Your task to perform on an android device: toggle improve location accuracy Image 0: 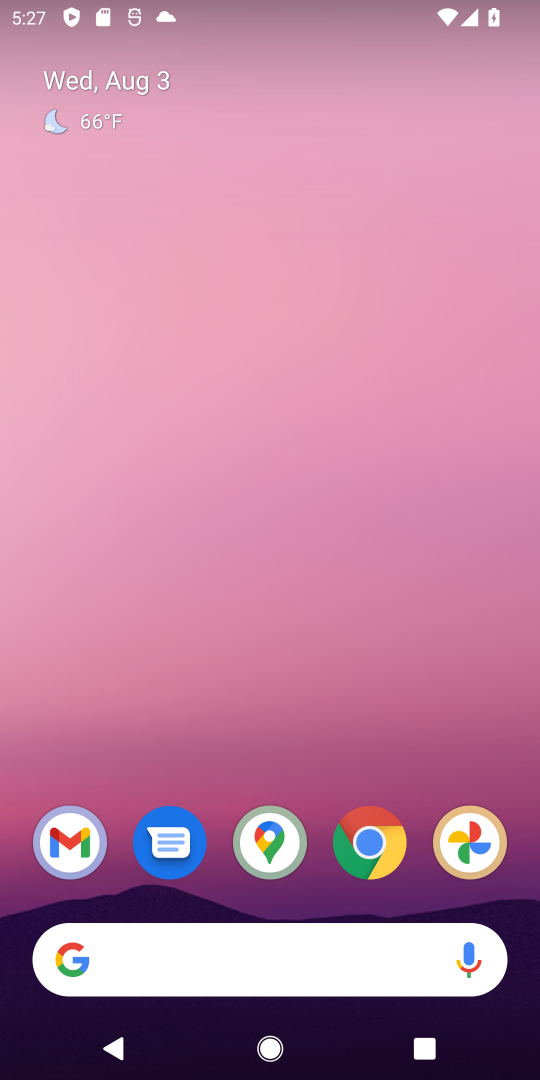
Step 0: drag from (282, 349) to (347, 82)
Your task to perform on an android device: toggle improve location accuracy Image 1: 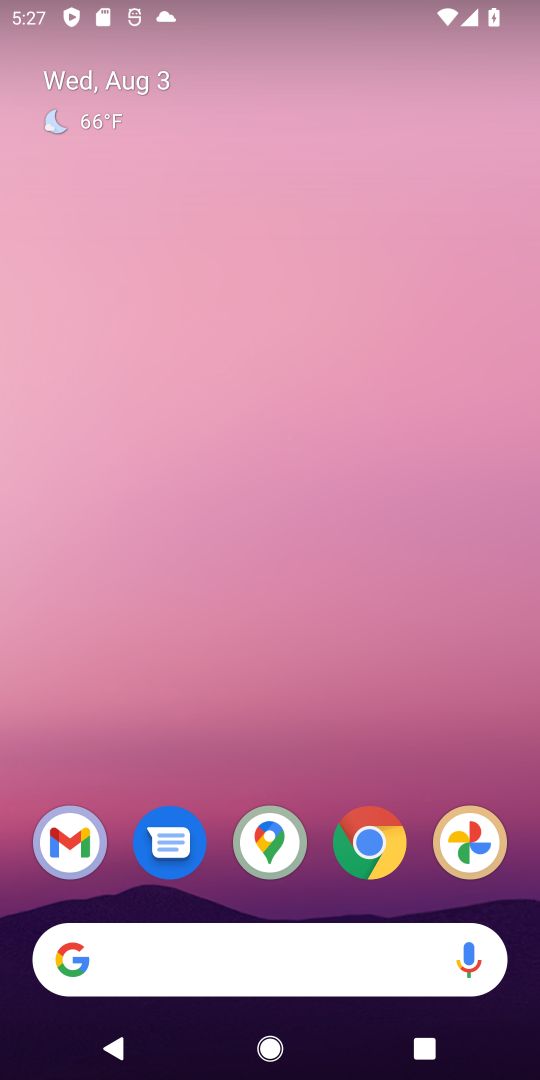
Step 1: drag from (198, 965) to (282, 192)
Your task to perform on an android device: toggle improve location accuracy Image 2: 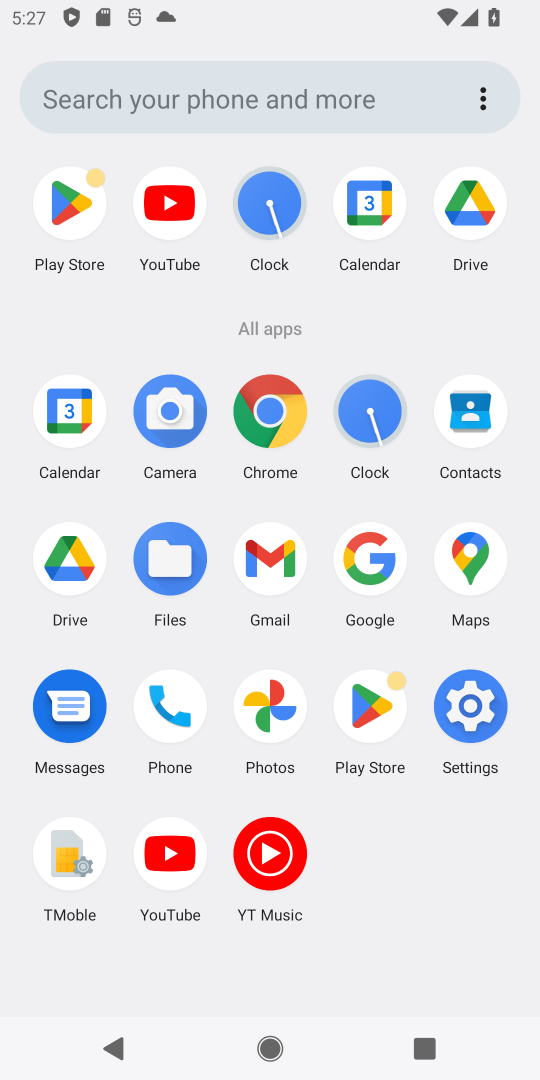
Step 2: click (452, 727)
Your task to perform on an android device: toggle improve location accuracy Image 3: 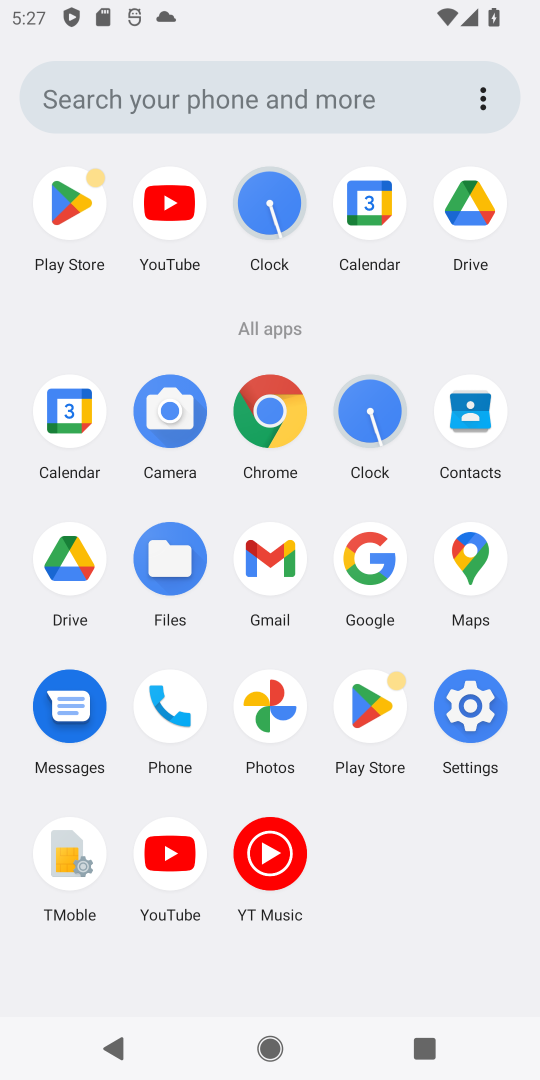
Step 3: click (452, 727)
Your task to perform on an android device: toggle improve location accuracy Image 4: 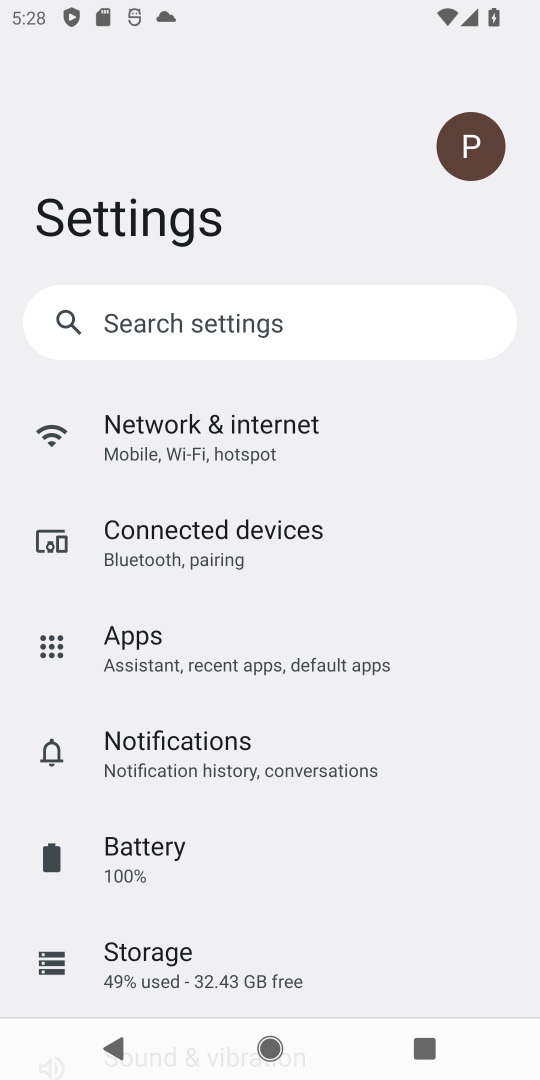
Step 4: drag from (374, 918) to (311, 13)
Your task to perform on an android device: toggle improve location accuracy Image 5: 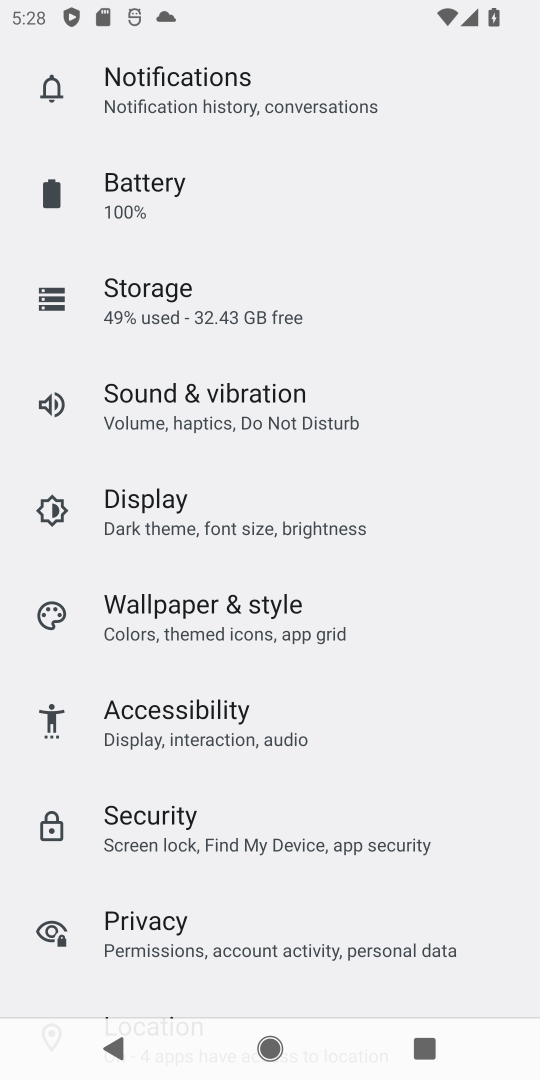
Step 5: drag from (177, 286) to (232, 1058)
Your task to perform on an android device: toggle improve location accuracy Image 6: 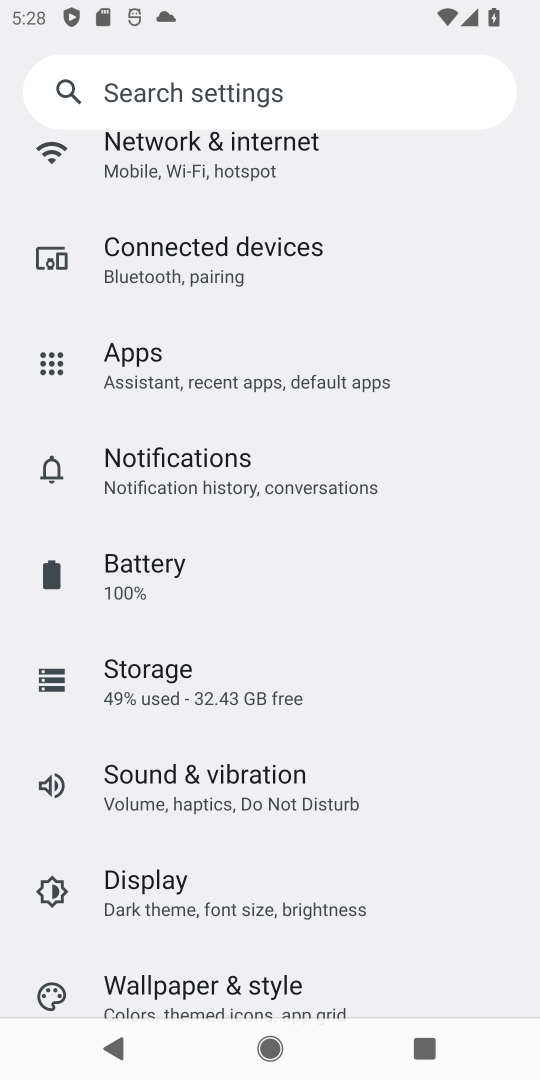
Step 6: drag from (243, 780) to (258, 88)
Your task to perform on an android device: toggle improve location accuracy Image 7: 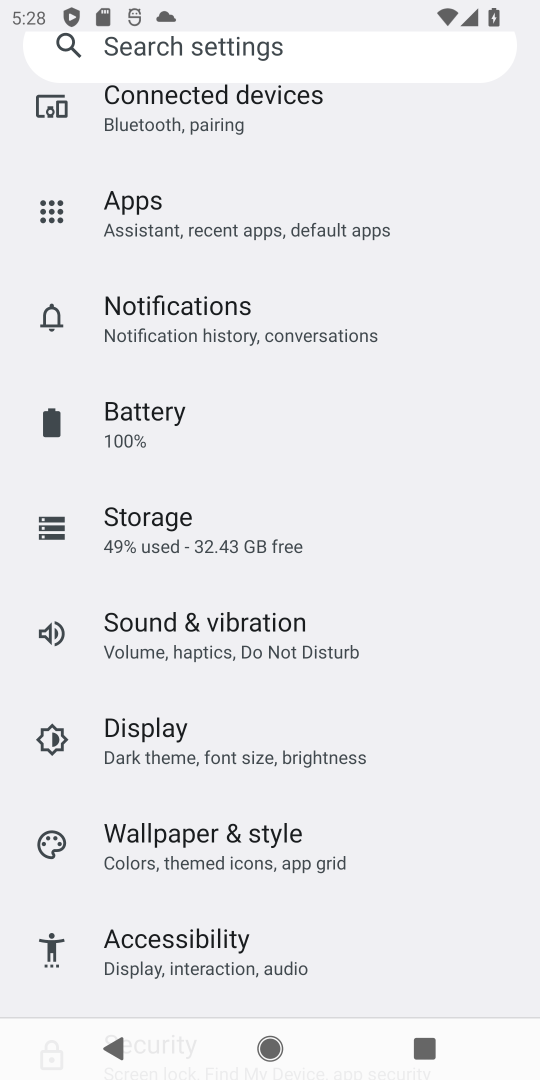
Step 7: drag from (276, 894) to (243, 129)
Your task to perform on an android device: toggle improve location accuracy Image 8: 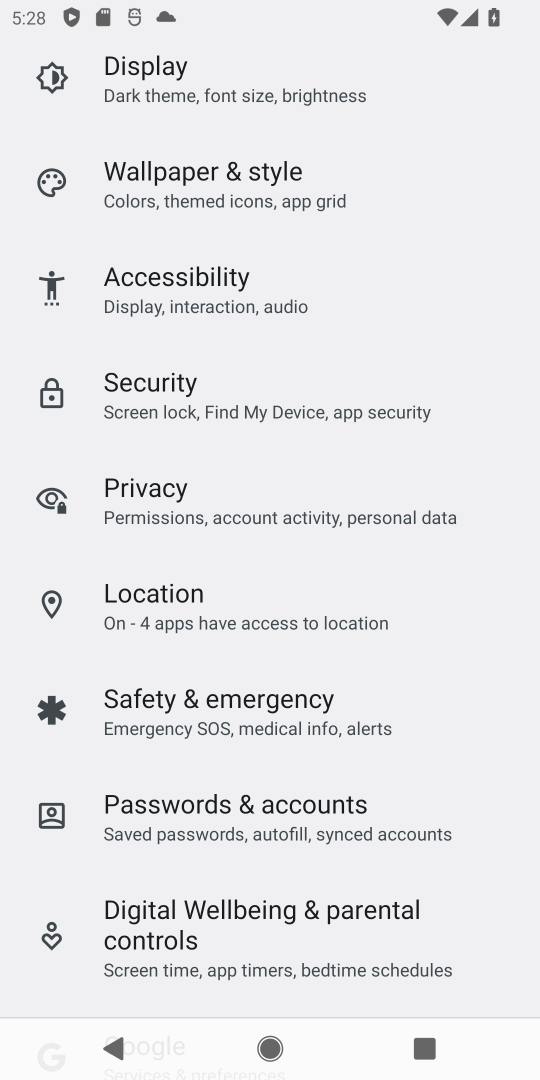
Step 8: click (248, 612)
Your task to perform on an android device: toggle improve location accuracy Image 9: 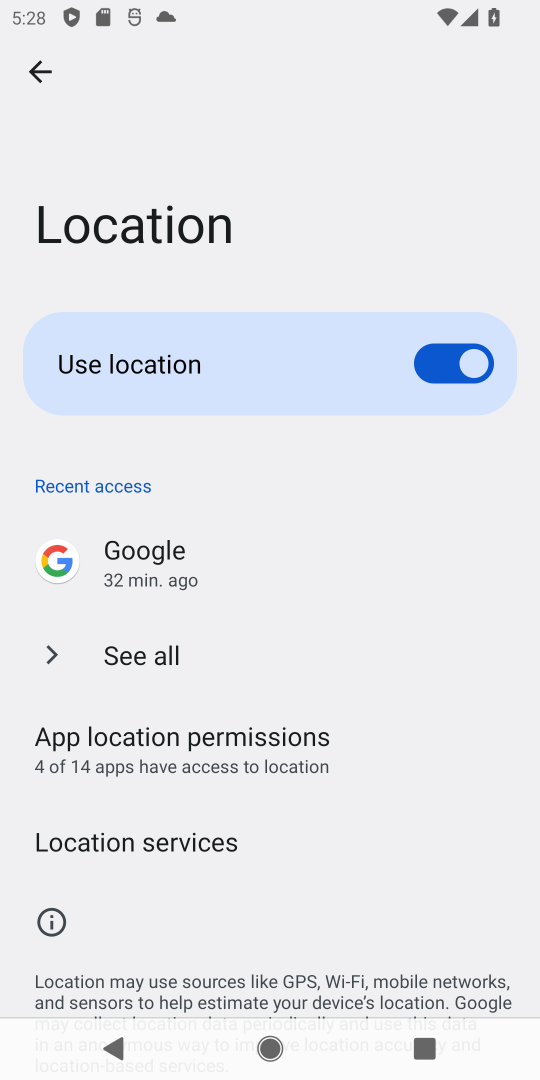
Step 9: drag from (225, 835) to (295, 78)
Your task to perform on an android device: toggle improve location accuracy Image 10: 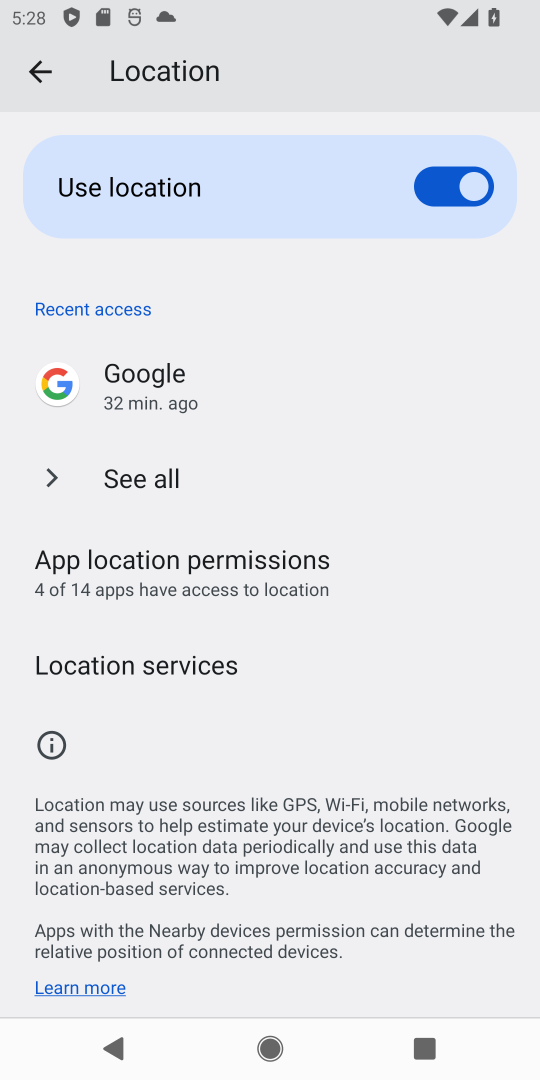
Step 10: drag from (157, 931) to (220, 78)
Your task to perform on an android device: toggle improve location accuracy Image 11: 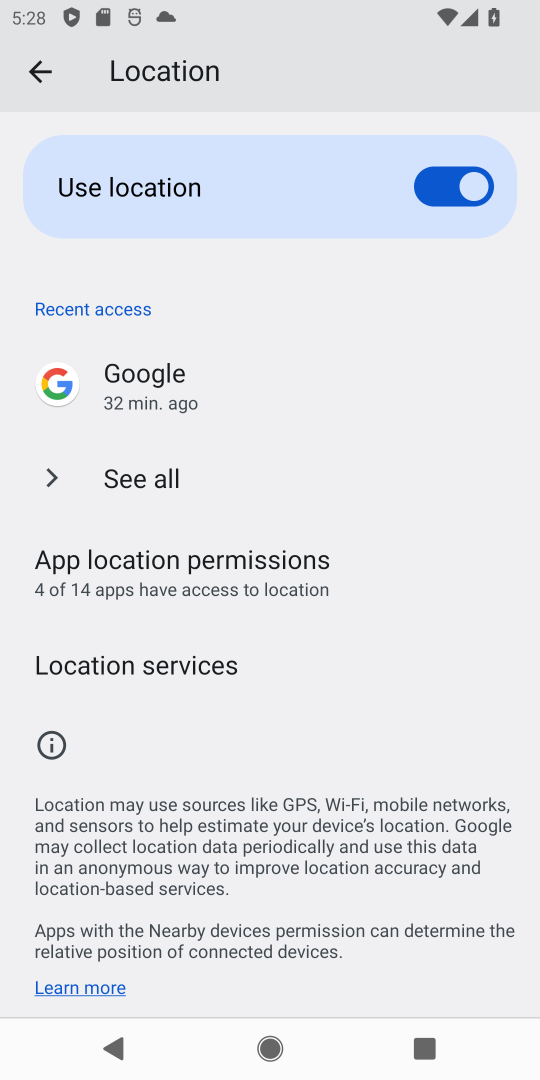
Step 11: click (149, 669)
Your task to perform on an android device: toggle improve location accuracy Image 12: 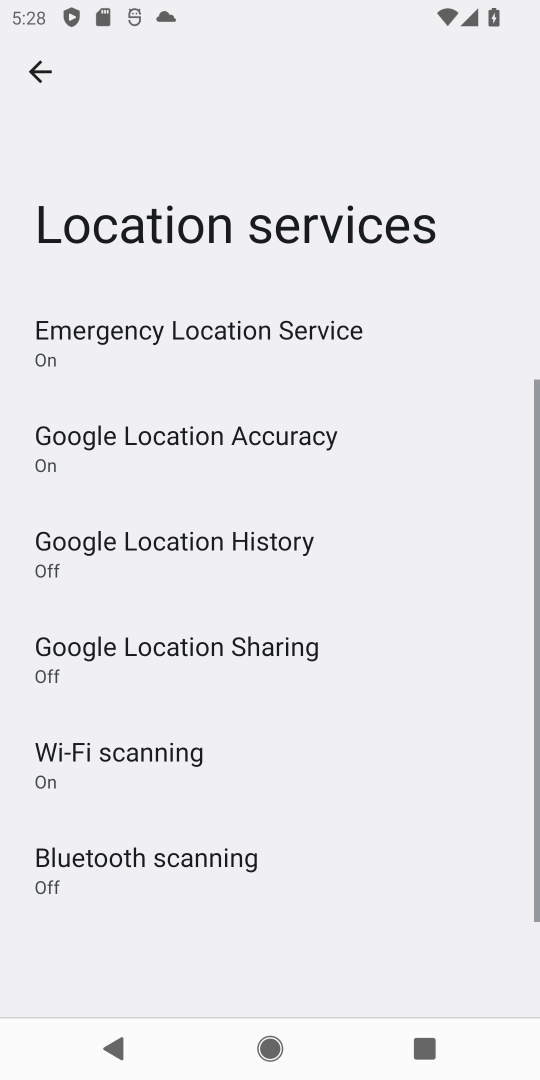
Step 12: click (321, 441)
Your task to perform on an android device: toggle improve location accuracy Image 13: 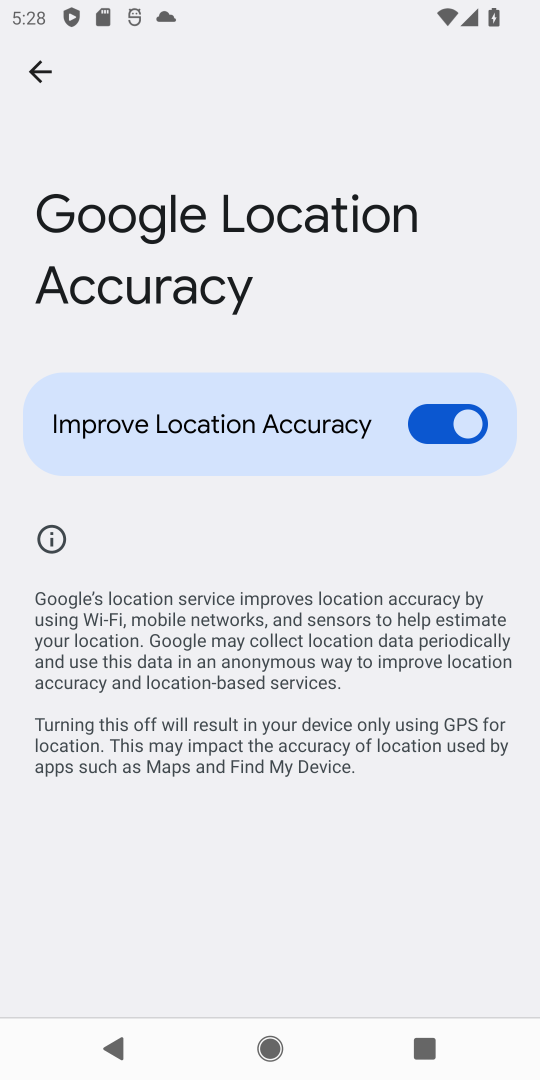
Step 13: click (423, 429)
Your task to perform on an android device: toggle improve location accuracy Image 14: 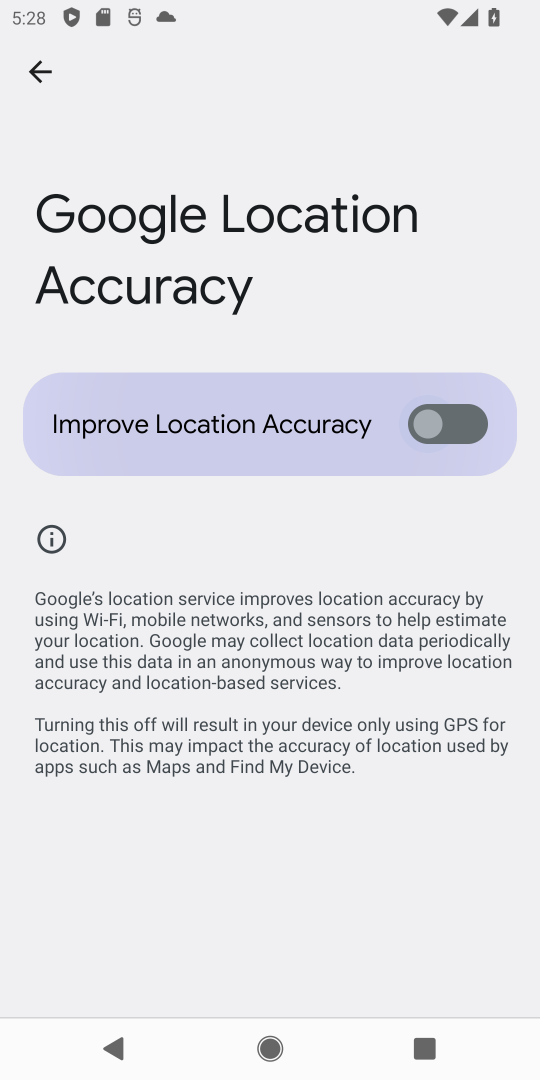
Step 14: task complete